Your task to perform on an android device: clear history in the chrome app Image 0: 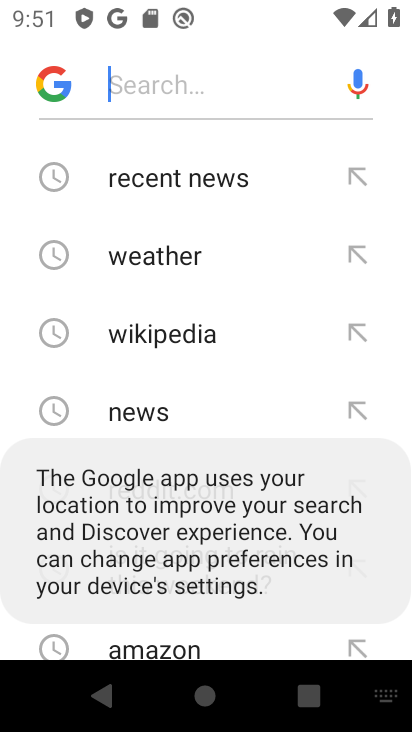
Step 0: press back button
Your task to perform on an android device: clear history in the chrome app Image 1: 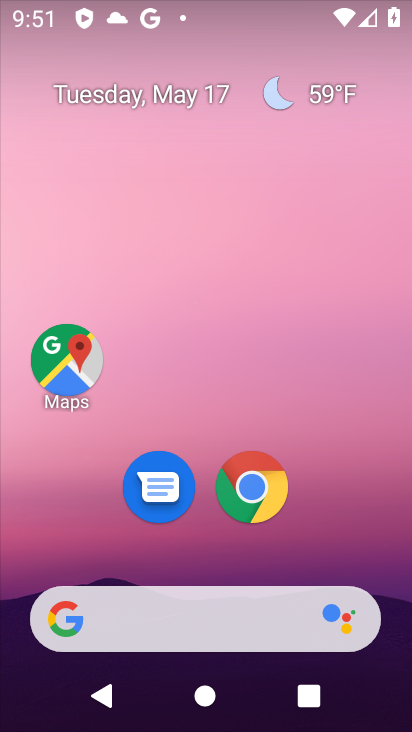
Step 1: click (249, 475)
Your task to perform on an android device: clear history in the chrome app Image 2: 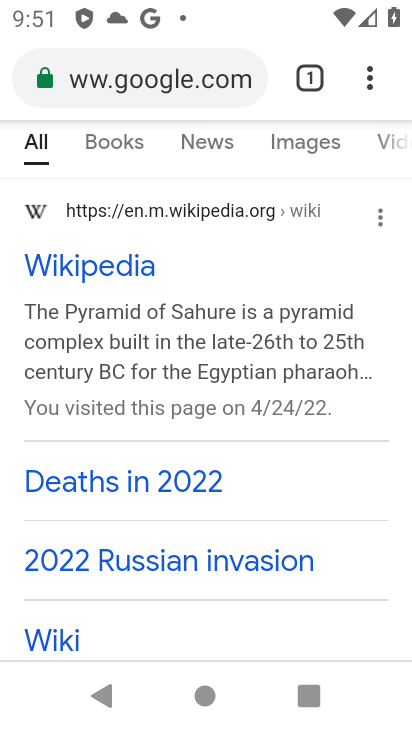
Step 2: click (364, 72)
Your task to perform on an android device: clear history in the chrome app Image 3: 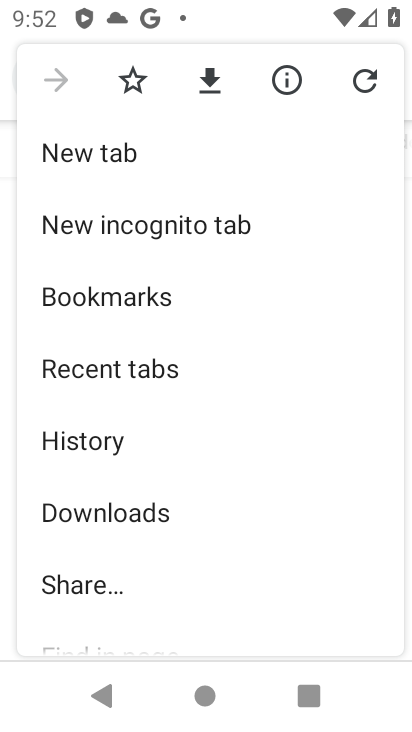
Step 3: click (54, 441)
Your task to perform on an android device: clear history in the chrome app Image 4: 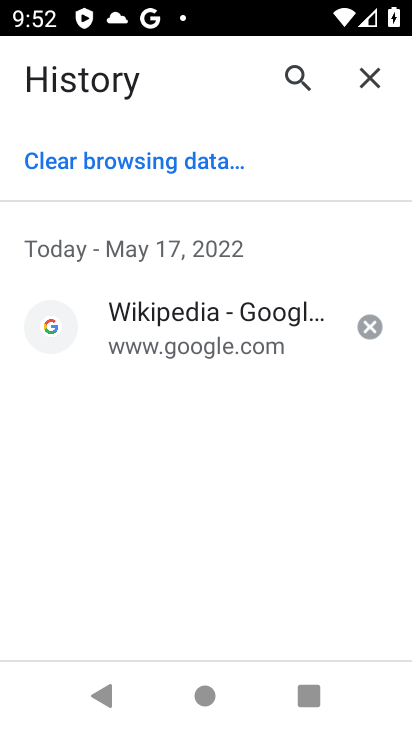
Step 4: click (161, 158)
Your task to perform on an android device: clear history in the chrome app Image 5: 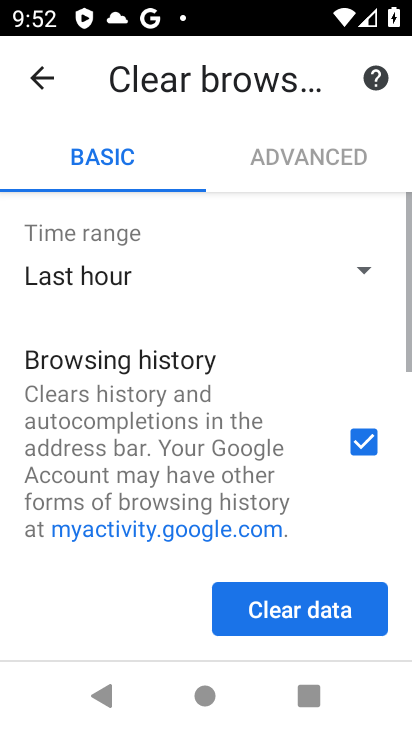
Step 5: click (265, 596)
Your task to perform on an android device: clear history in the chrome app Image 6: 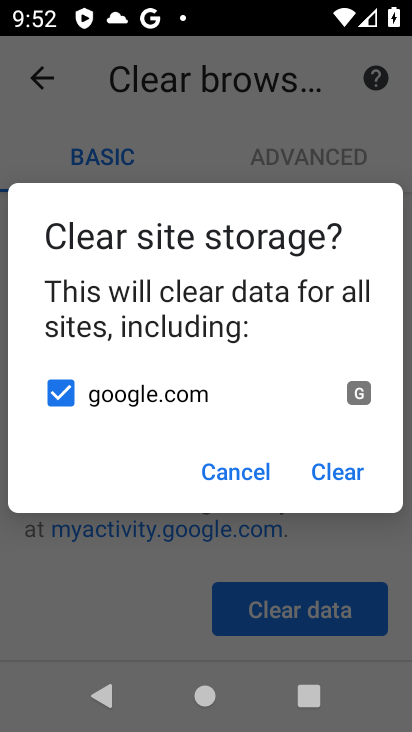
Step 6: click (346, 468)
Your task to perform on an android device: clear history in the chrome app Image 7: 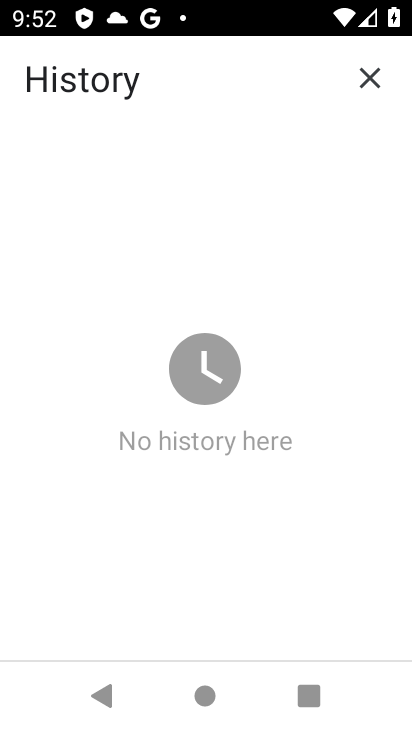
Step 7: task complete